Your task to perform on an android device: open app "Google Maps" Image 0: 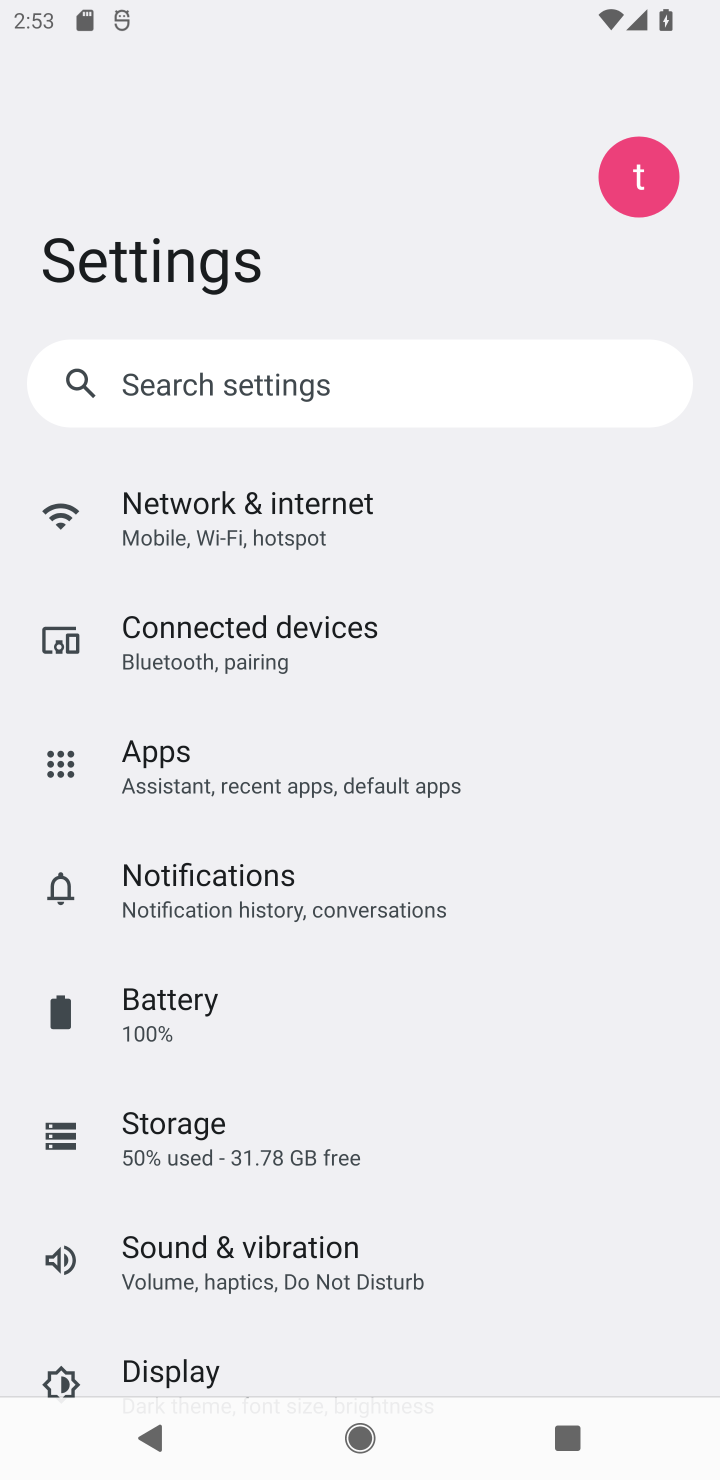
Step 0: press home button
Your task to perform on an android device: open app "Google Maps" Image 1: 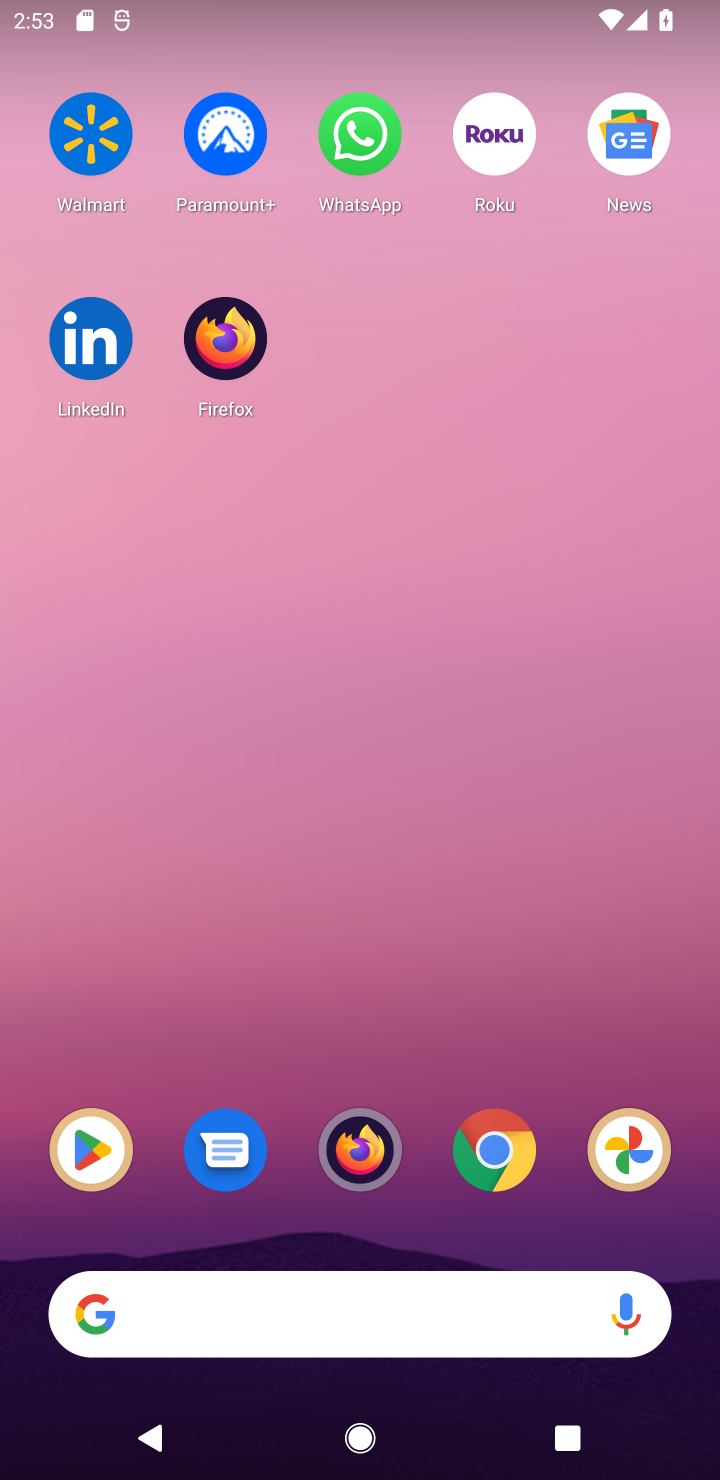
Step 1: drag from (295, 1255) to (180, 277)
Your task to perform on an android device: open app "Google Maps" Image 2: 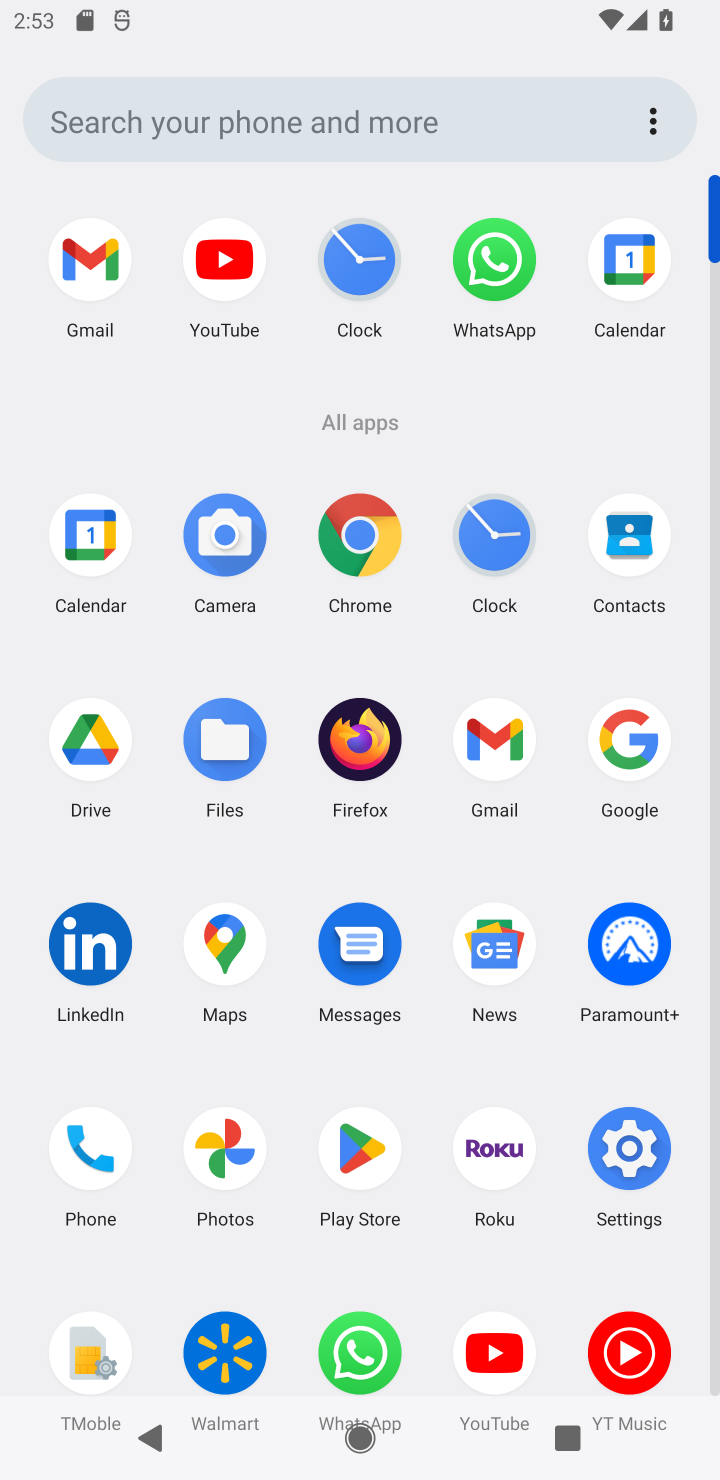
Step 2: click (215, 959)
Your task to perform on an android device: open app "Google Maps" Image 3: 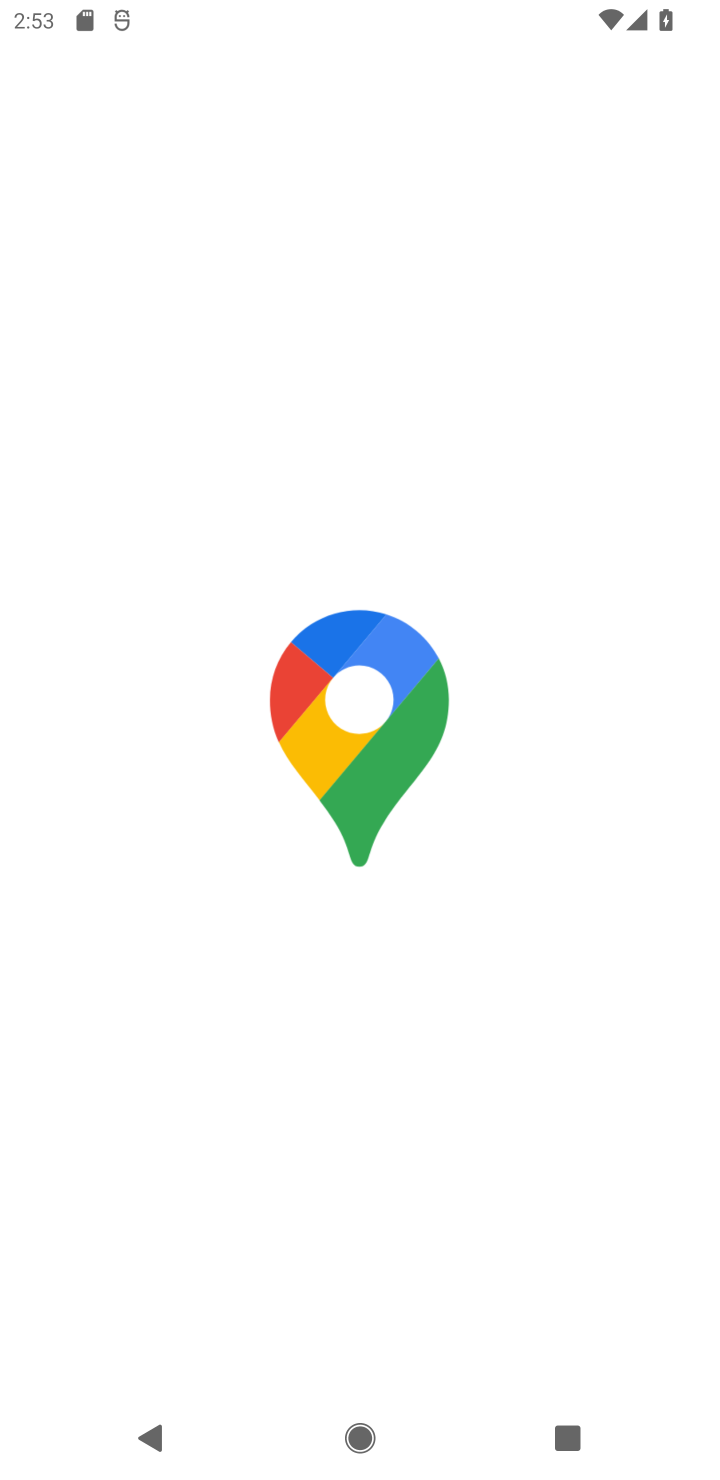
Step 3: task complete